Your task to perform on an android device: change notifications settings Image 0: 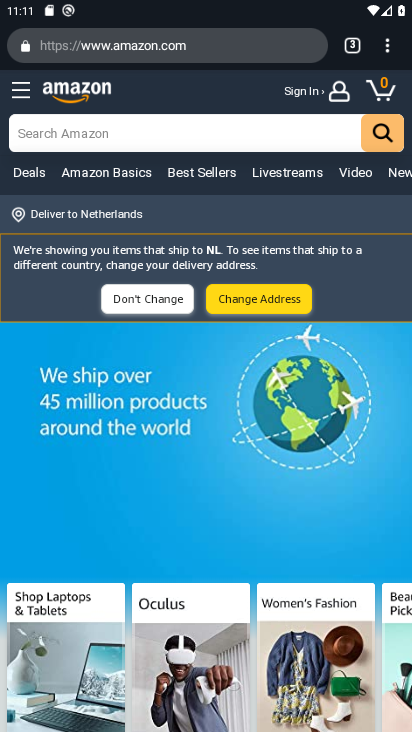
Step 0: press home button
Your task to perform on an android device: change notifications settings Image 1: 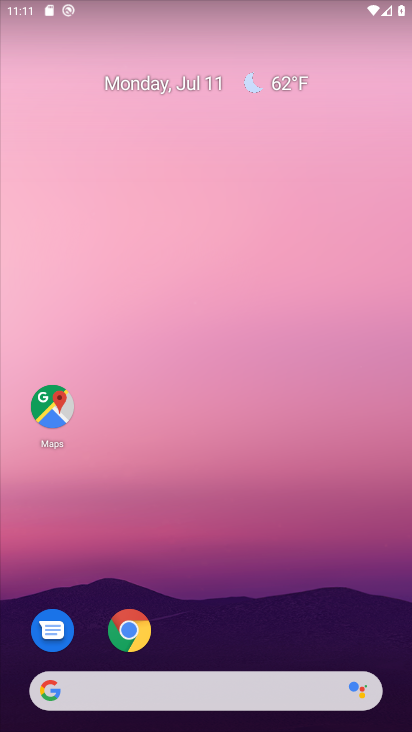
Step 1: drag from (261, 604) to (204, 3)
Your task to perform on an android device: change notifications settings Image 2: 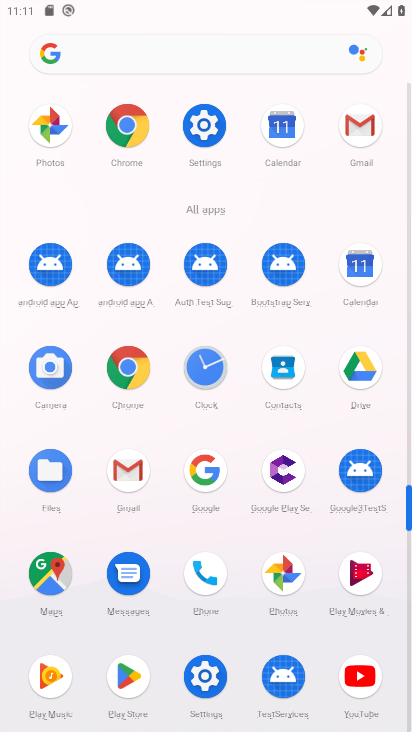
Step 2: click (213, 125)
Your task to perform on an android device: change notifications settings Image 3: 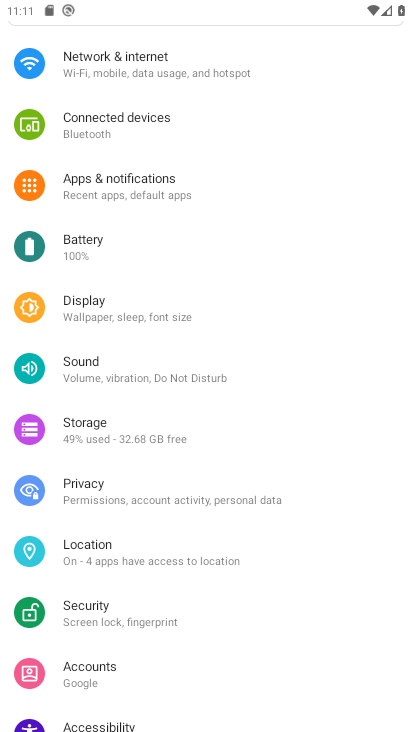
Step 3: click (169, 189)
Your task to perform on an android device: change notifications settings Image 4: 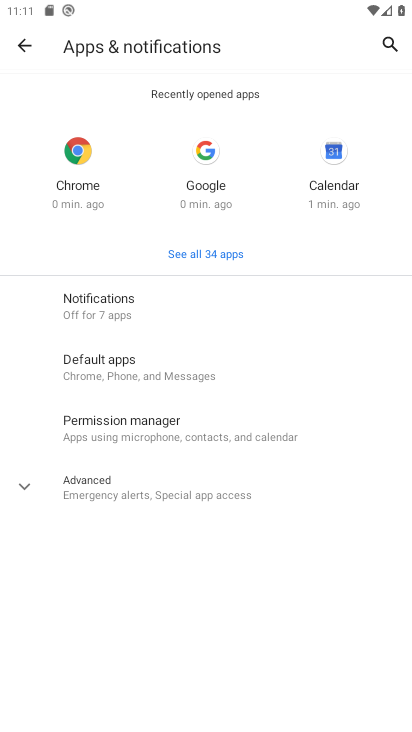
Step 4: click (127, 300)
Your task to perform on an android device: change notifications settings Image 5: 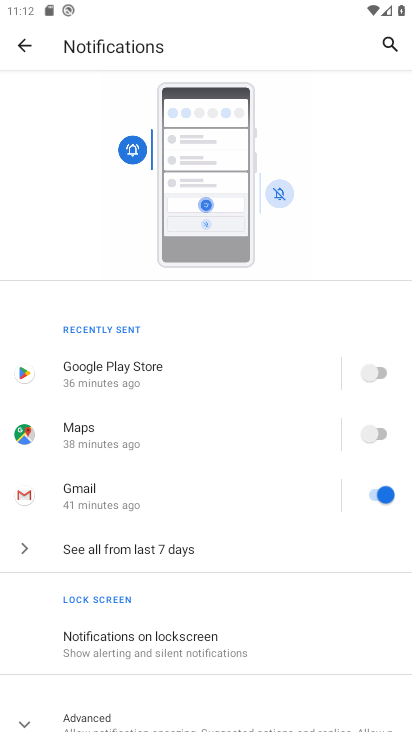
Step 5: click (177, 540)
Your task to perform on an android device: change notifications settings Image 6: 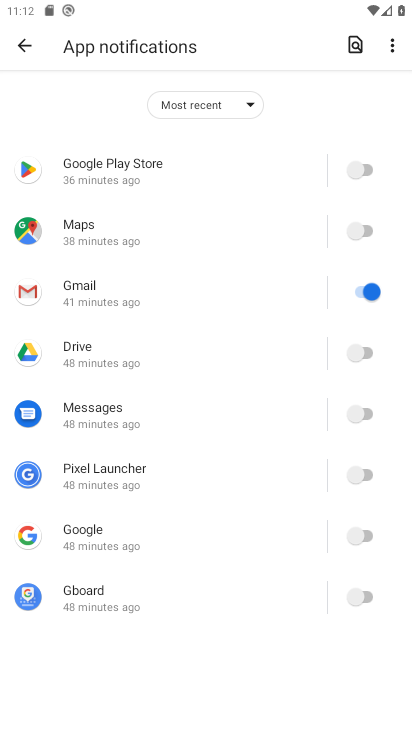
Step 6: click (365, 174)
Your task to perform on an android device: change notifications settings Image 7: 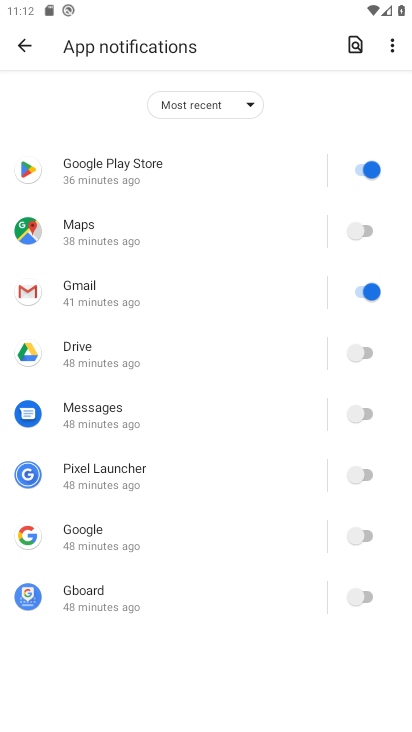
Step 7: click (362, 222)
Your task to perform on an android device: change notifications settings Image 8: 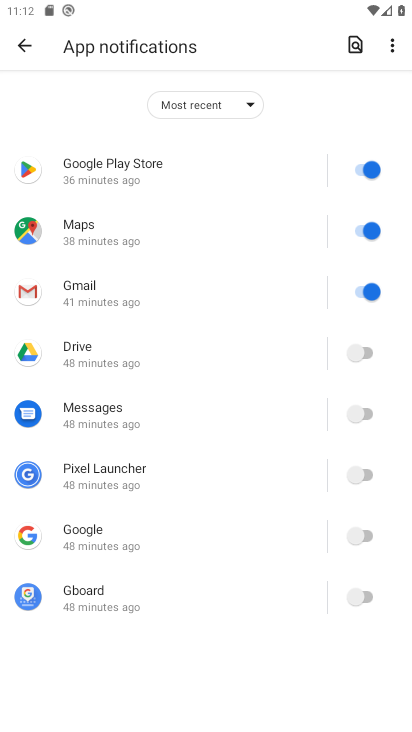
Step 8: click (365, 284)
Your task to perform on an android device: change notifications settings Image 9: 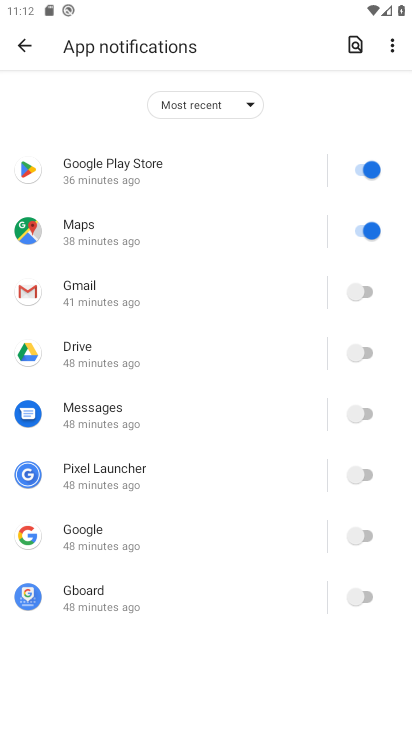
Step 9: click (365, 349)
Your task to perform on an android device: change notifications settings Image 10: 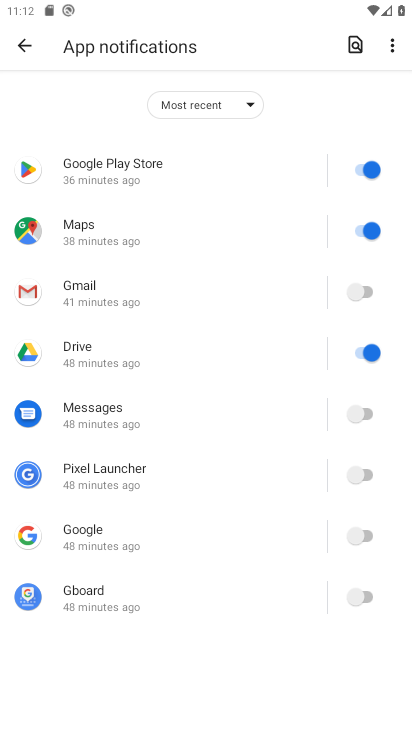
Step 10: click (357, 411)
Your task to perform on an android device: change notifications settings Image 11: 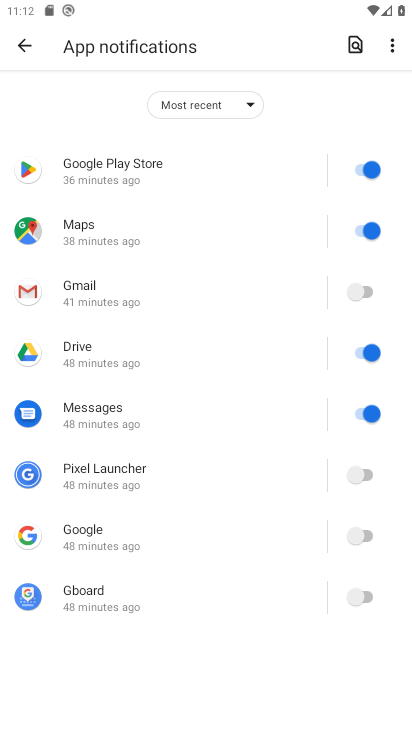
Step 11: click (357, 473)
Your task to perform on an android device: change notifications settings Image 12: 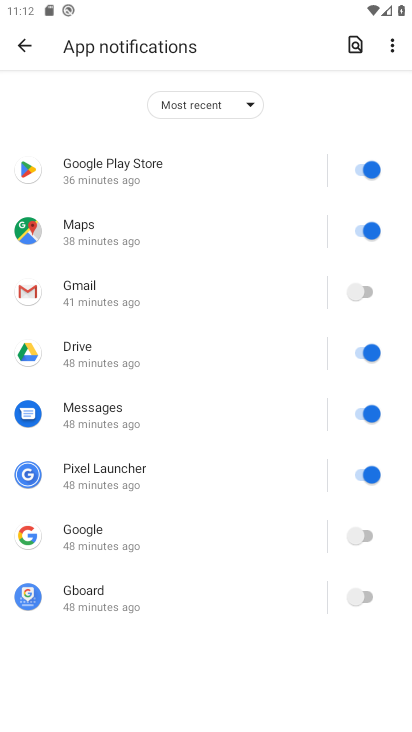
Step 12: click (365, 533)
Your task to perform on an android device: change notifications settings Image 13: 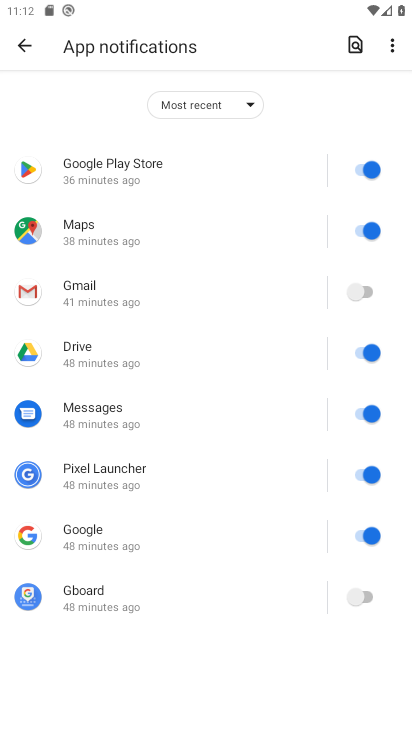
Step 13: click (363, 596)
Your task to perform on an android device: change notifications settings Image 14: 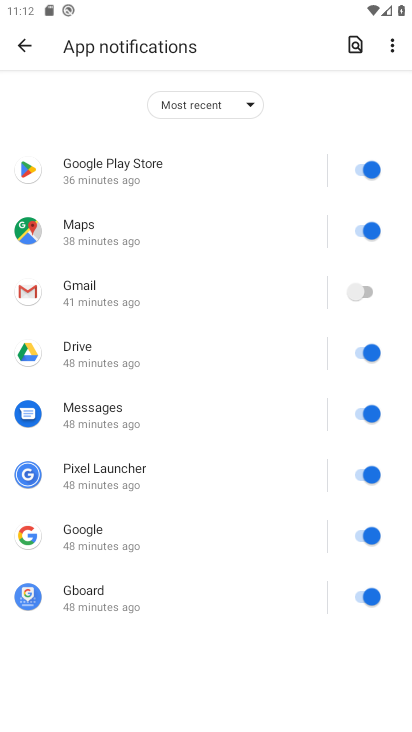
Step 14: task complete